Your task to perform on an android device: Open Reddit.com Image 0: 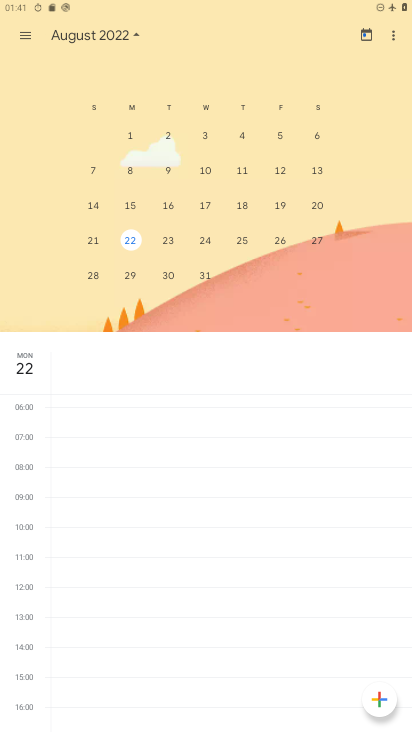
Step 0: press home button
Your task to perform on an android device: Open Reddit.com Image 1: 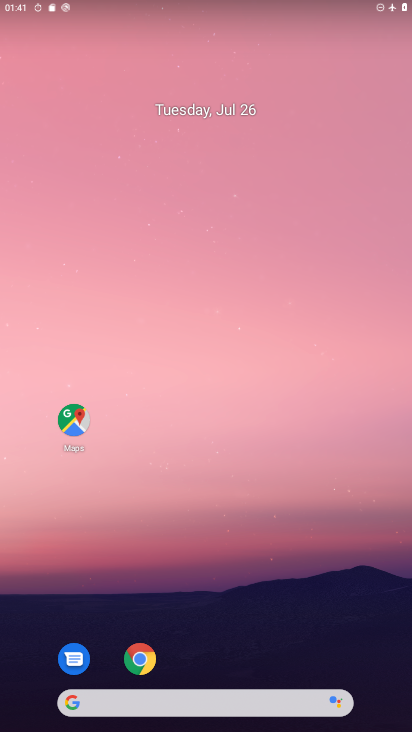
Step 1: click (123, 706)
Your task to perform on an android device: Open Reddit.com Image 2: 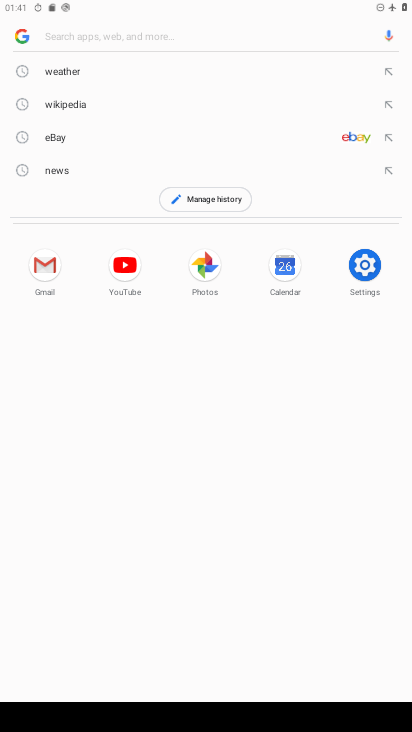
Step 2: type "Reddit.com"
Your task to perform on an android device: Open Reddit.com Image 3: 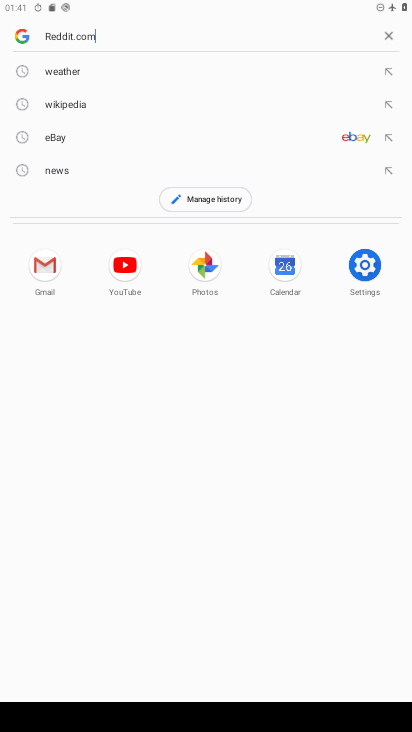
Step 3: type ""
Your task to perform on an android device: Open Reddit.com Image 4: 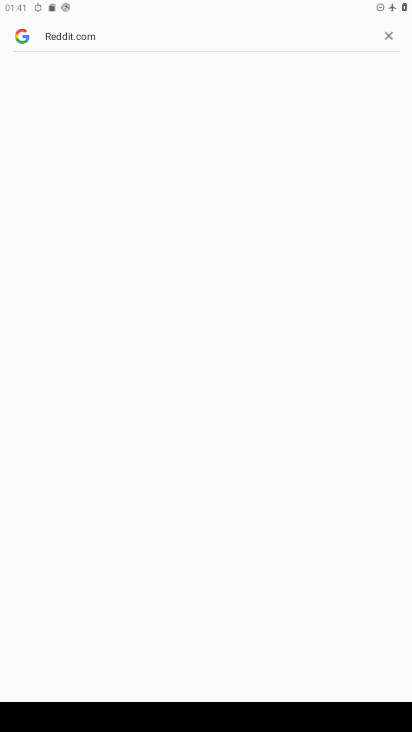
Step 4: type ""
Your task to perform on an android device: Open Reddit.com Image 5: 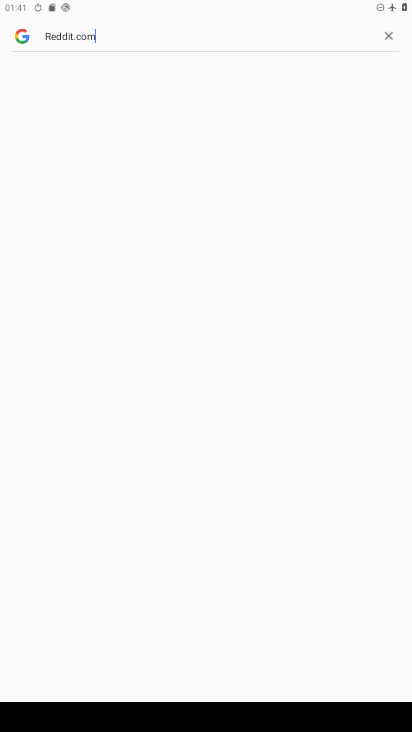
Step 5: type ""
Your task to perform on an android device: Open Reddit.com Image 6: 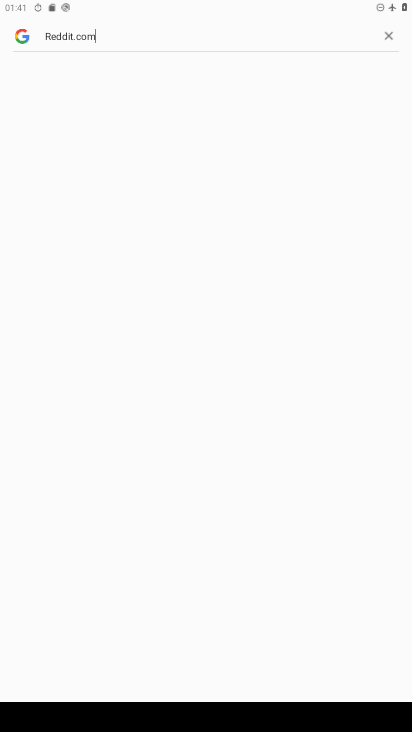
Step 6: task complete